Your task to perform on an android device: install app "DoorDash - Food Delivery" Image 0: 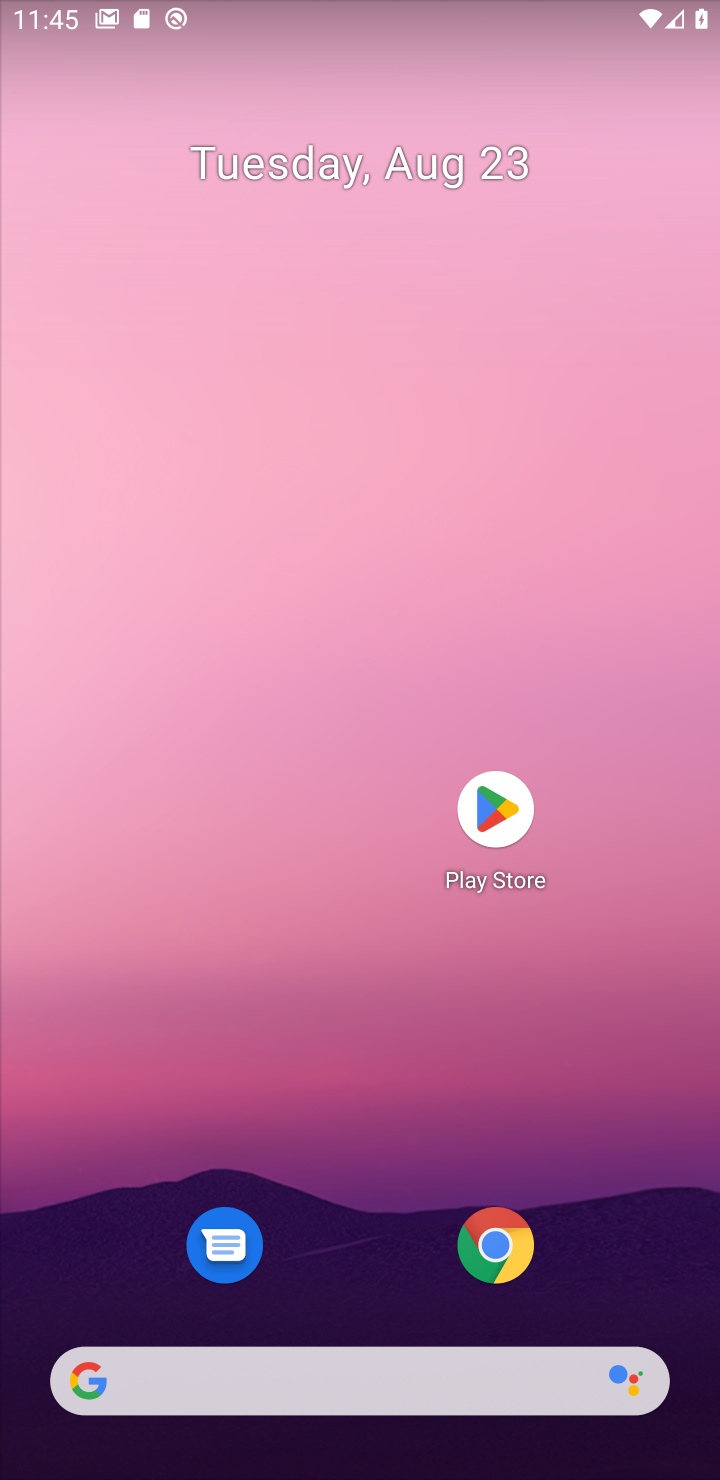
Step 0: press home button
Your task to perform on an android device: install app "DoorDash - Food Delivery" Image 1: 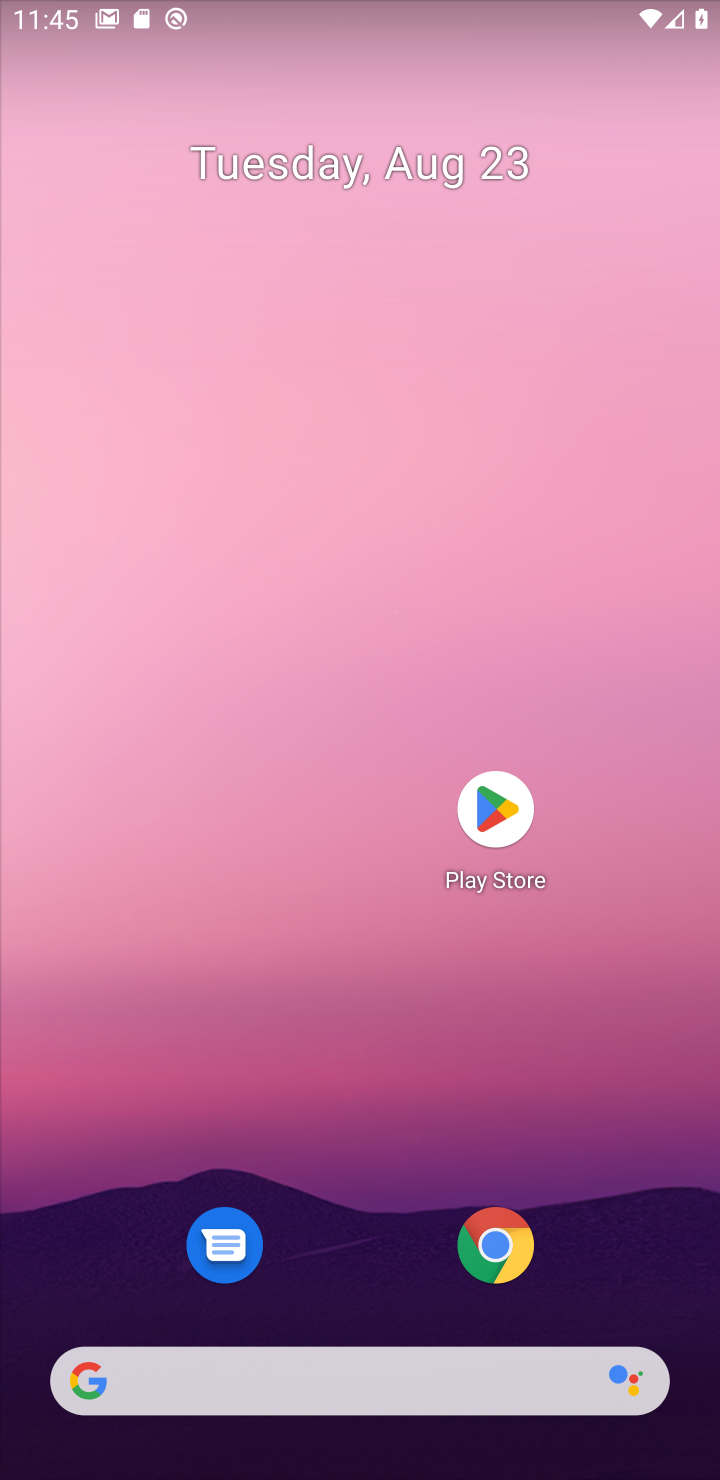
Step 1: click (484, 813)
Your task to perform on an android device: install app "DoorDash - Food Delivery" Image 2: 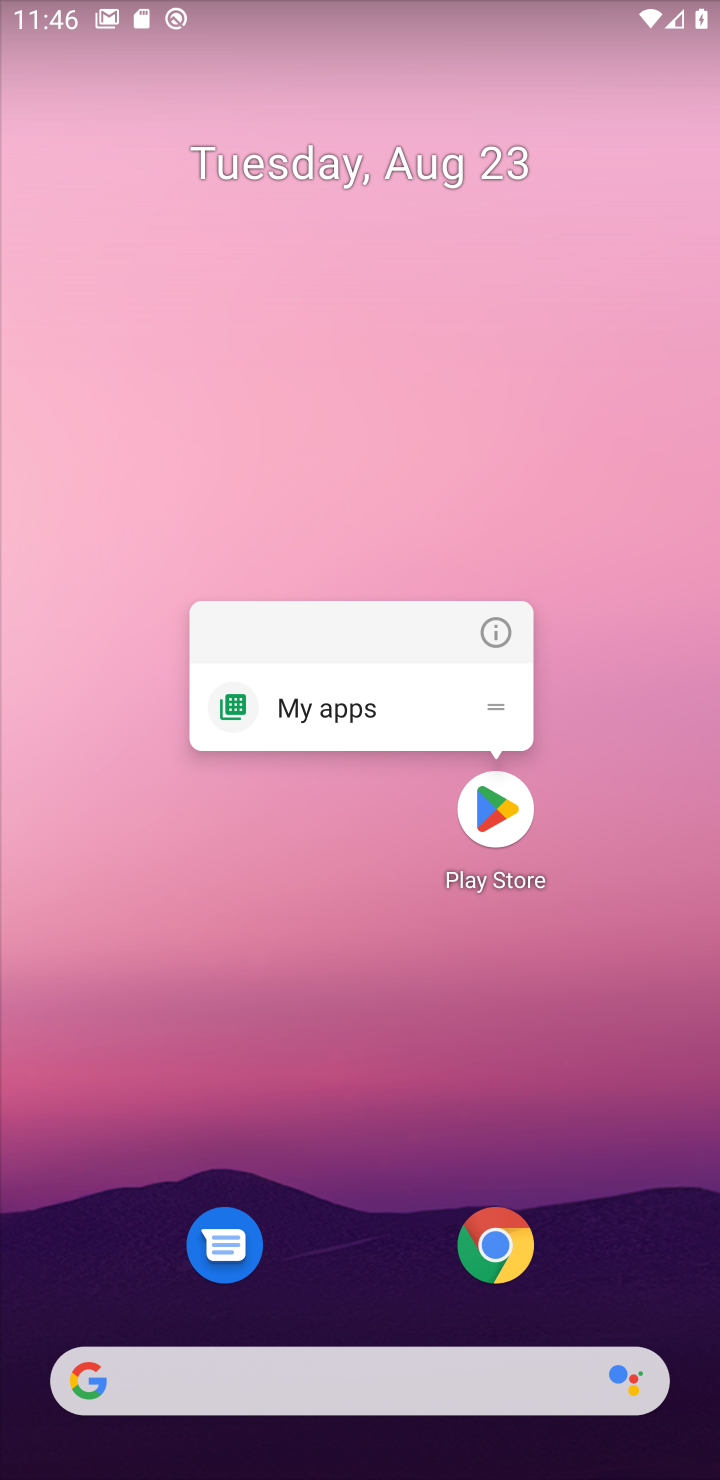
Step 2: click (509, 803)
Your task to perform on an android device: install app "DoorDash - Food Delivery" Image 3: 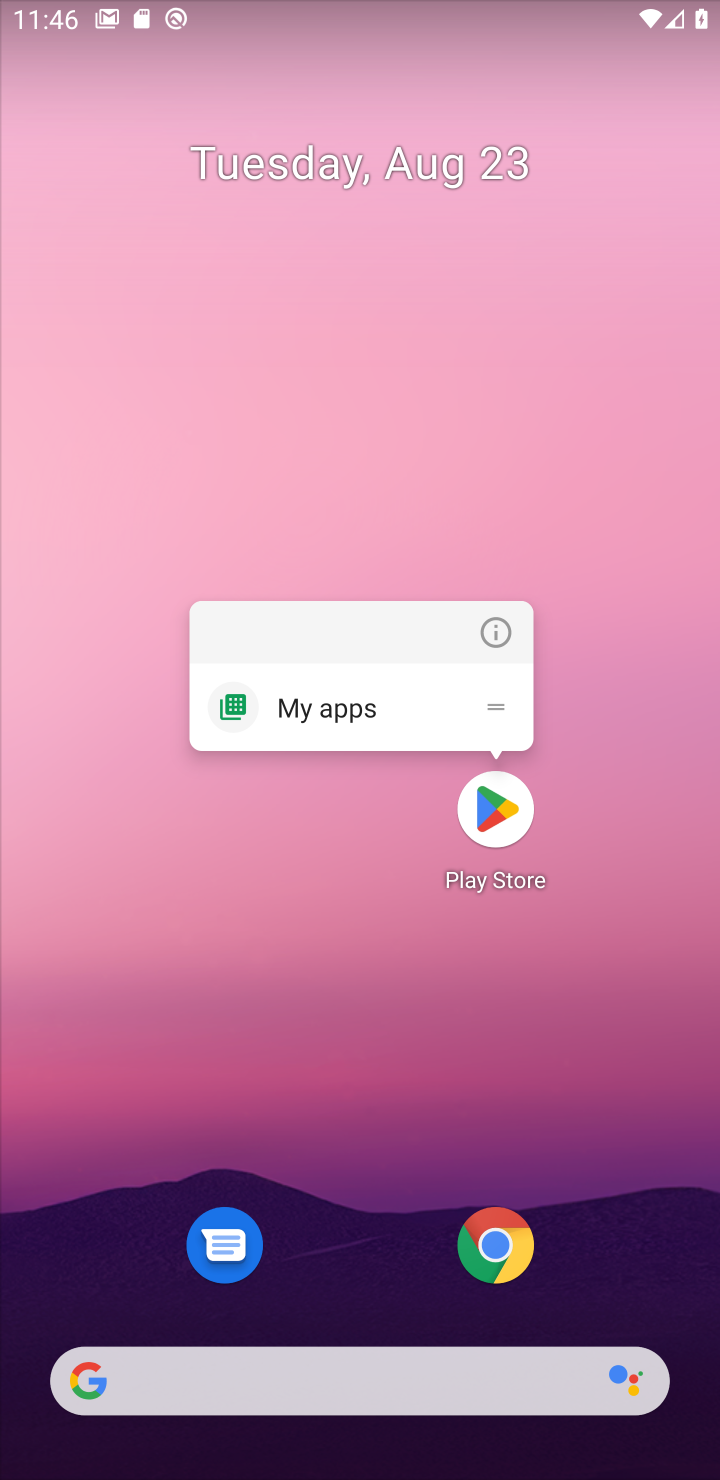
Step 3: click (496, 816)
Your task to perform on an android device: install app "DoorDash - Food Delivery" Image 4: 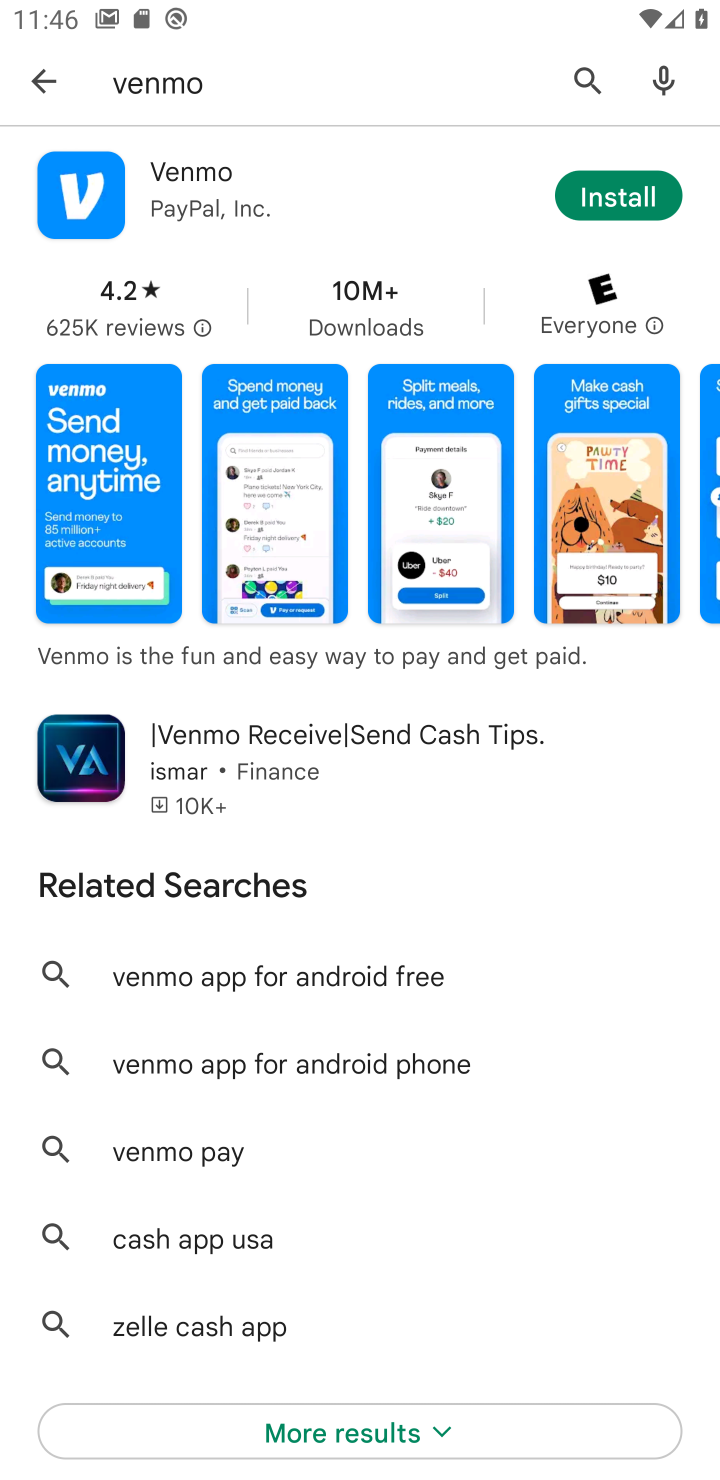
Step 4: click (586, 79)
Your task to perform on an android device: install app "DoorDash - Food Delivery" Image 5: 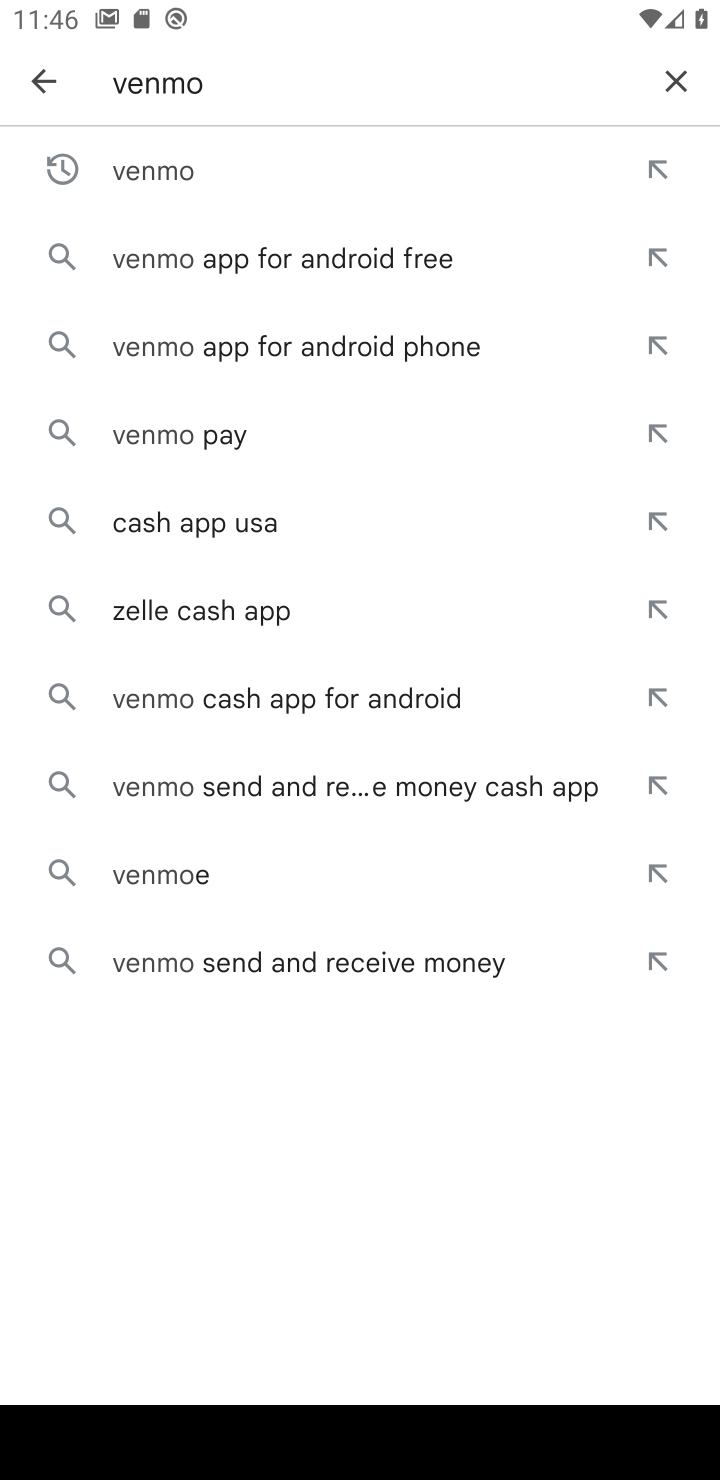
Step 5: click (586, 80)
Your task to perform on an android device: install app "DoorDash - Food Delivery" Image 6: 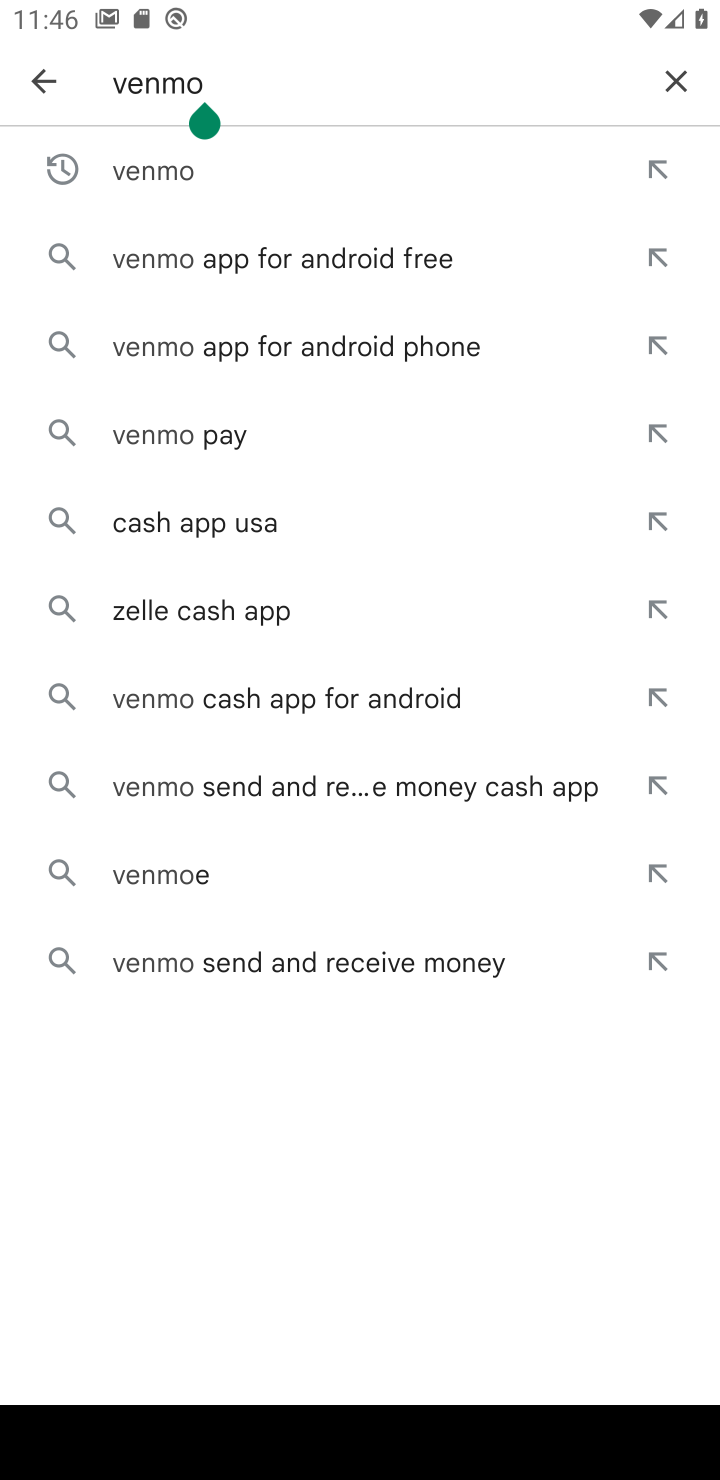
Step 6: click (686, 79)
Your task to perform on an android device: install app "DoorDash - Food Delivery" Image 7: 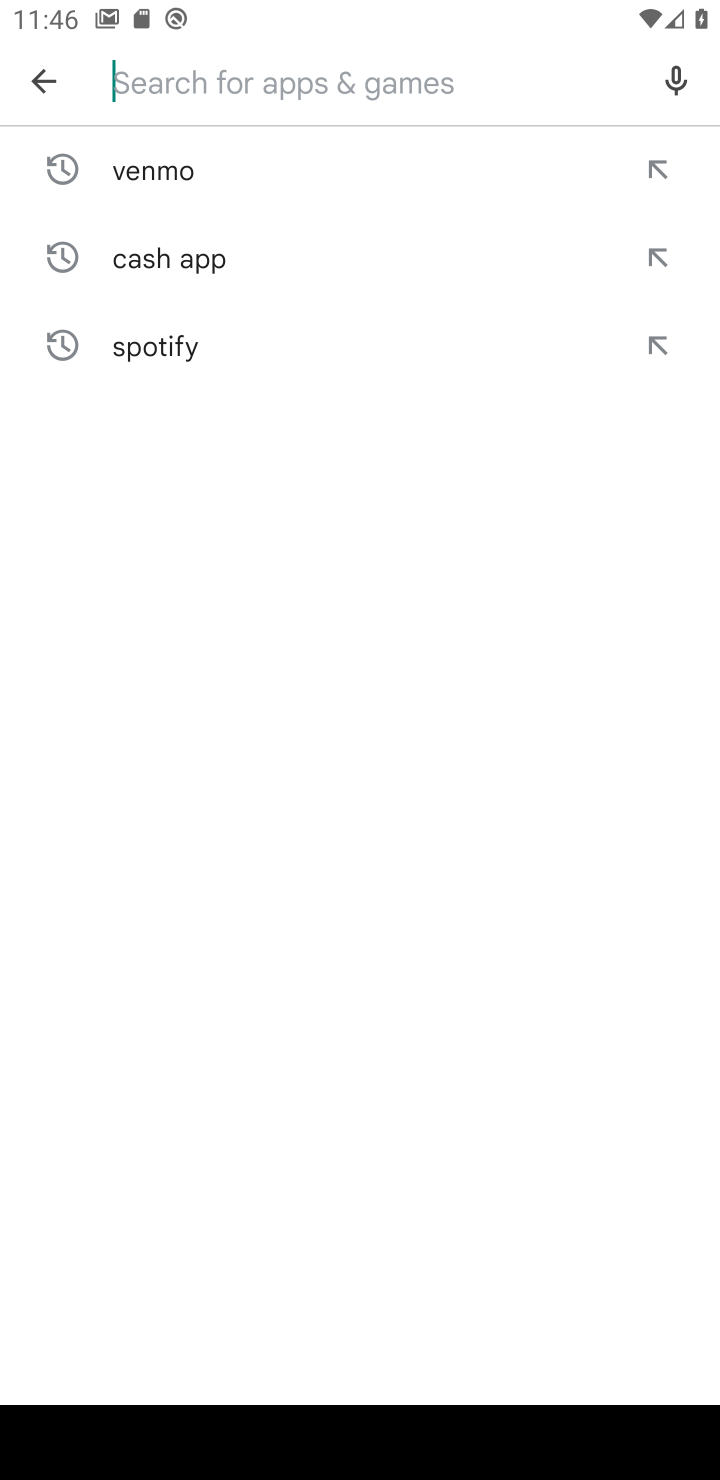
Step 7: type "DoorDash - Food Delivery"
Your task to perform on an android device: install app "DoorDash - Food Delivery" Image 8: 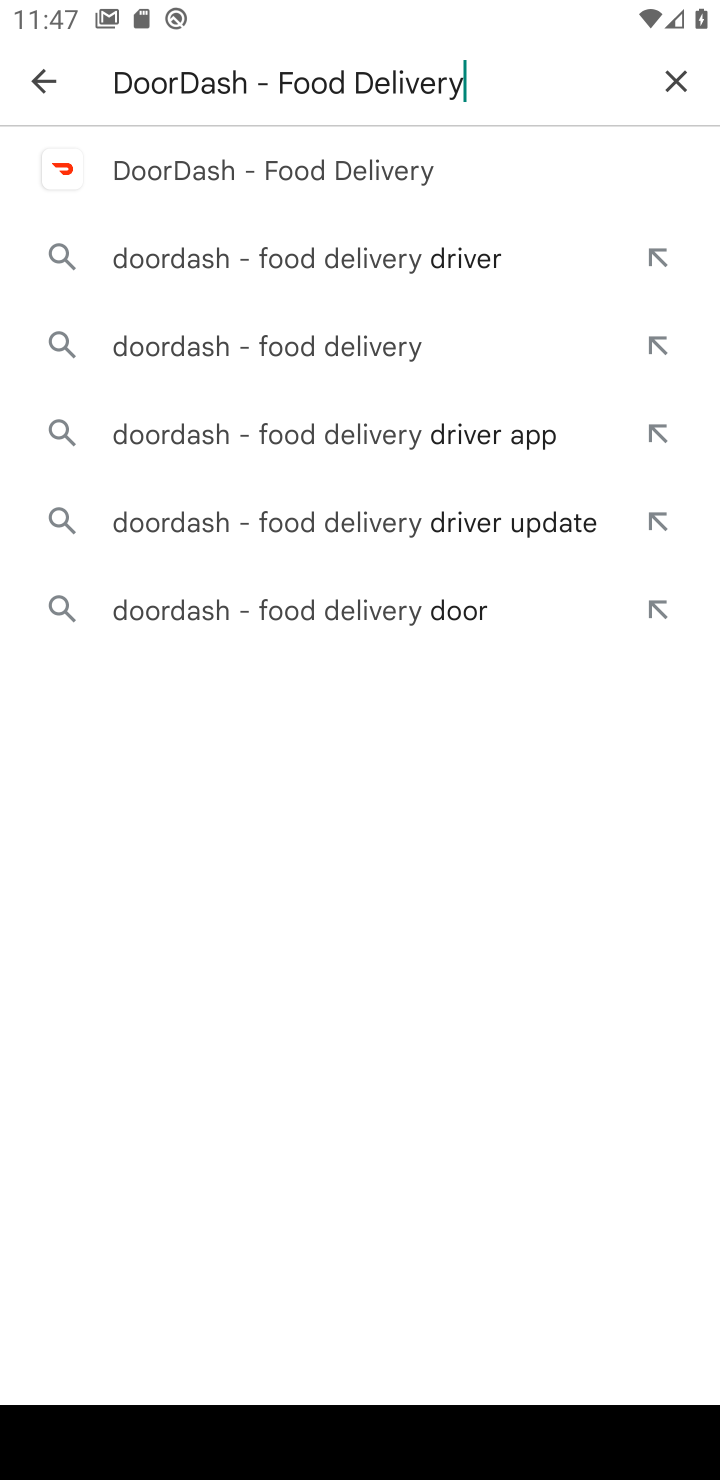
Step 8: click (385, 173)
Your task to perform on an android device: install app "DoorDash - Food Delivery" Image 9: 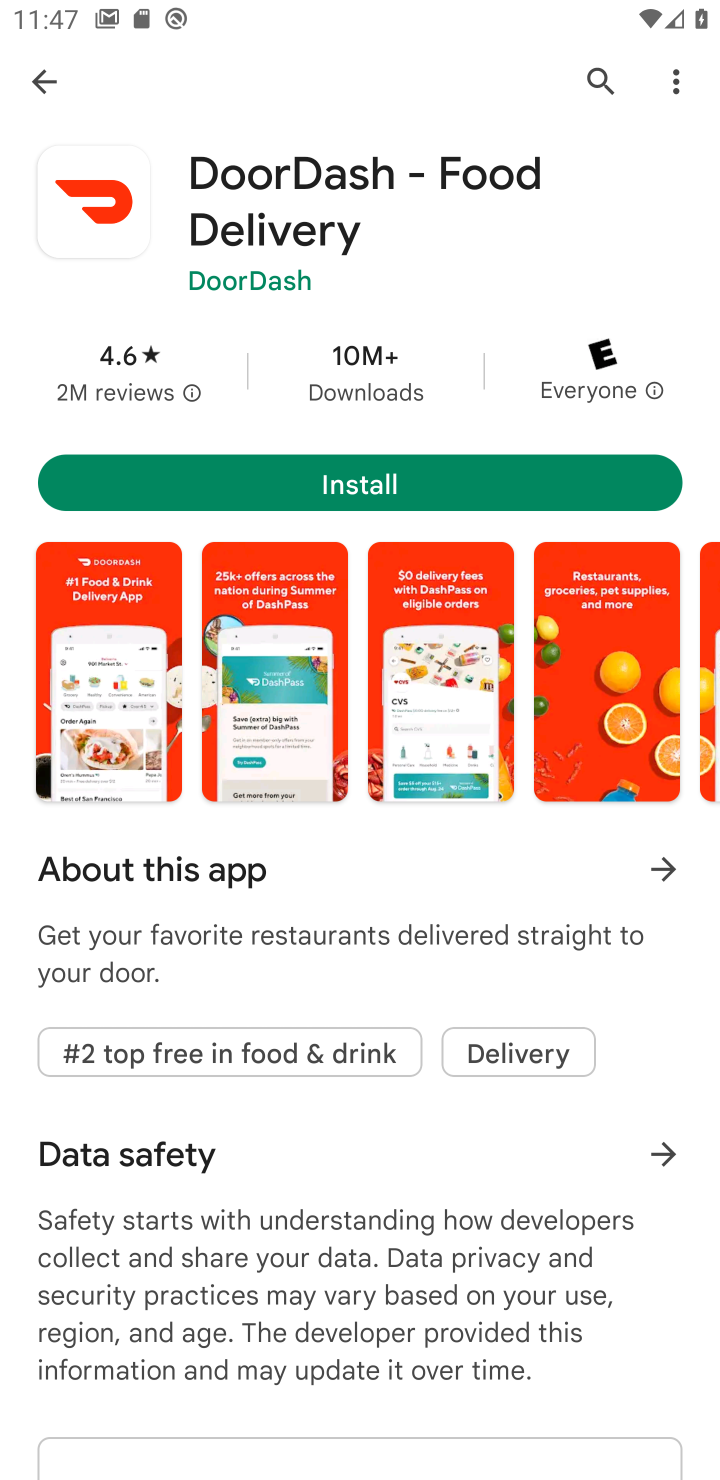
Step 9: click (391, 483)
Your task to perform on an android device: install app "DoorDash - Food Delivery" Image 10: 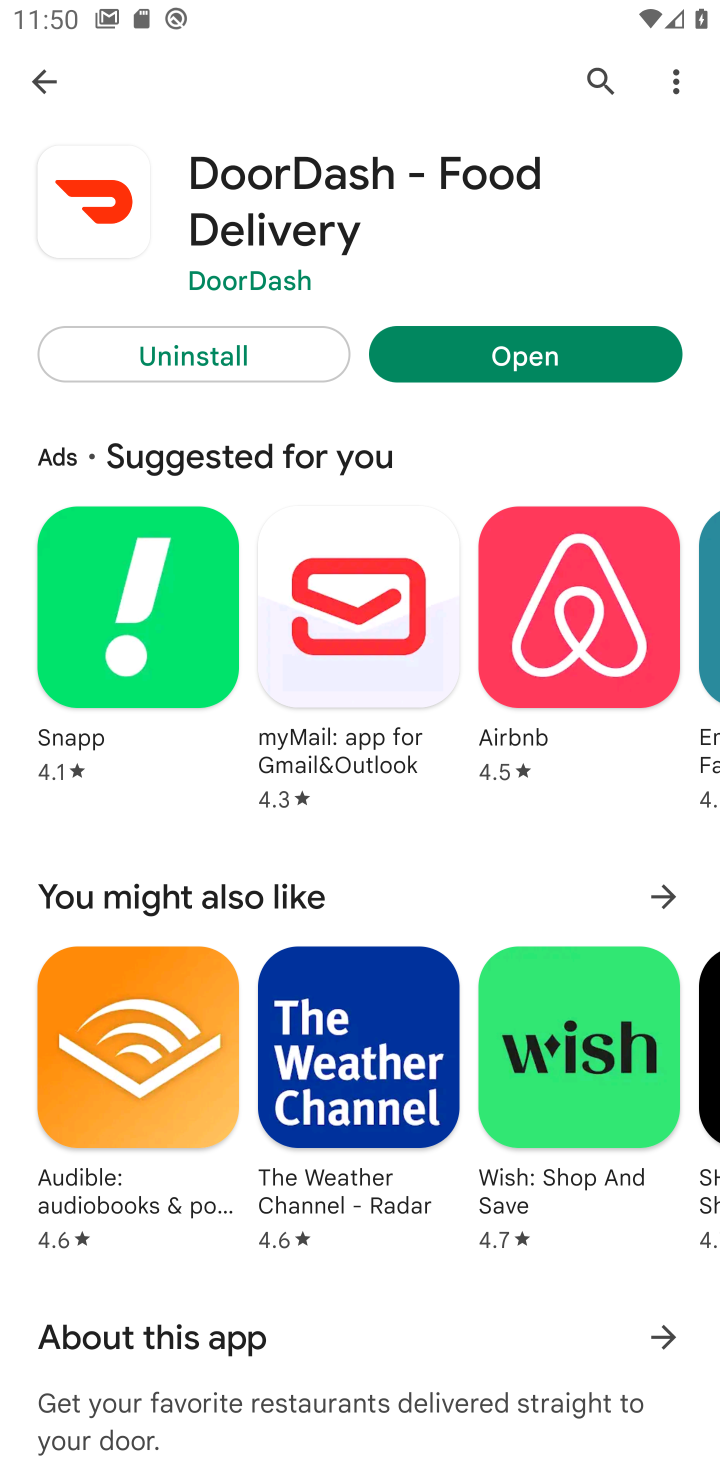
Step 10: task complete